Your task to perform on an android device: toggle translation in the chrome app Image 0: 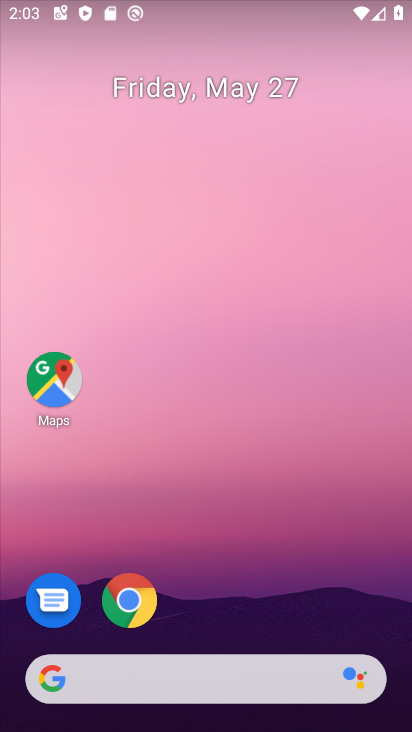
Step 0: click (131, 609)
Your task to perform on an android device: toggle translation in the chrome app Image 1: 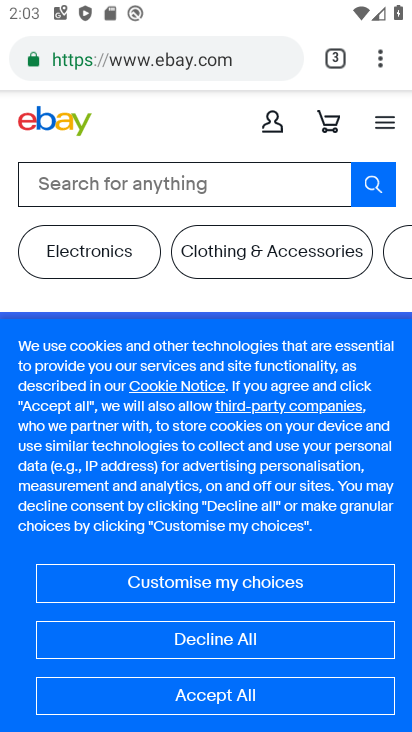
Step 1: click (383, 62)
Your task to perform on an android device: toggle translation in the chrome app Image 2: 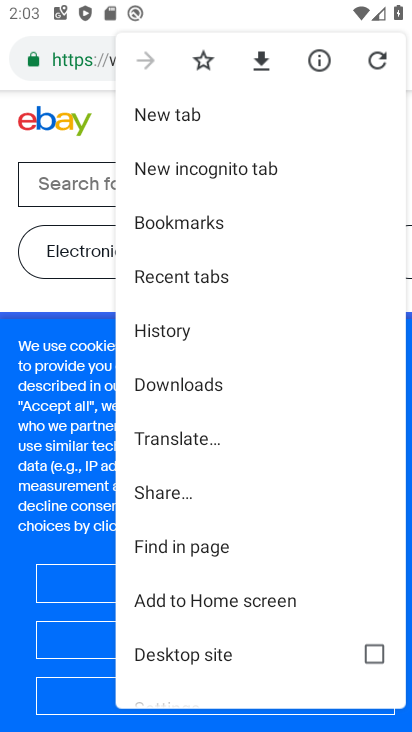
Step 2: drag from (183, 619) to (200, 168)
Your task to perform on an android device: toggle translation in the chrome app Image 3: 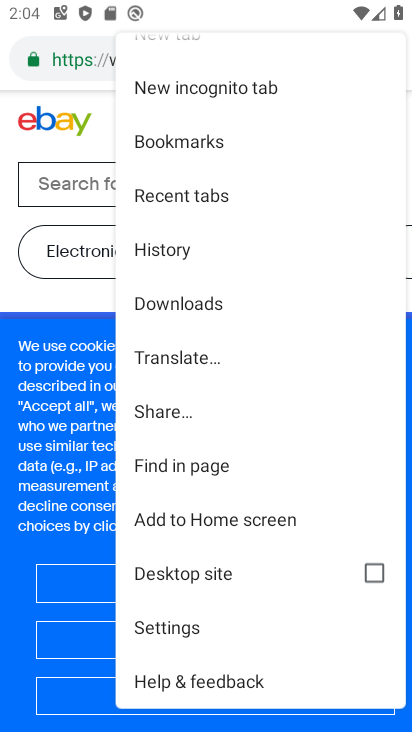
Step 3: click (158, 624)
Your task to perform on an android device: toggle translation in the chrome app Image 4: 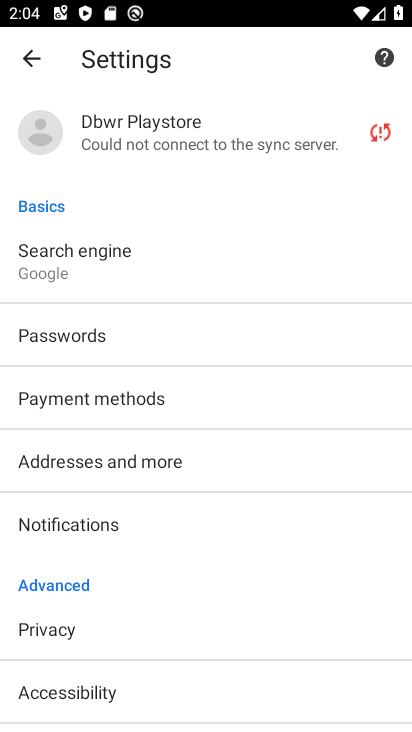
Step 4: drag from (121, 687) to (147, 410)
Your task to perform on an android device: toggle translation in the chrome app Image 5: 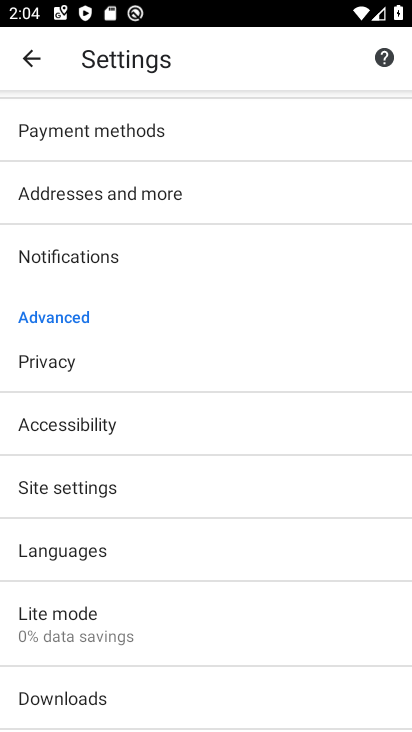
Step 5: click (97, 553)
Your task to perform on an android device: toggle translation in the chrome app Image 6: 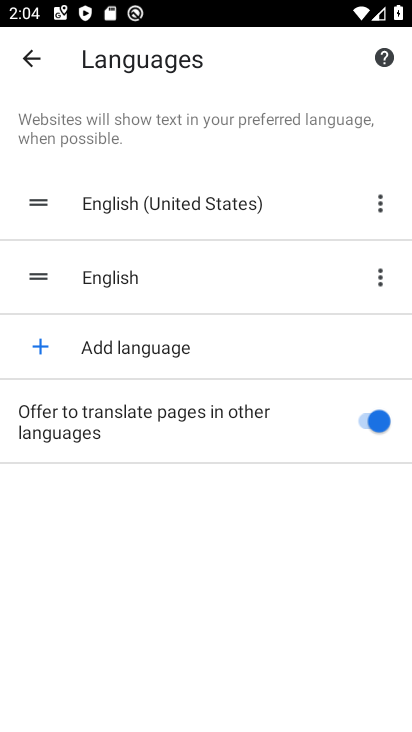
Step 6: click (373, 418)
Your task to perform on an android device: toggle translation in the chrome app Image 7: 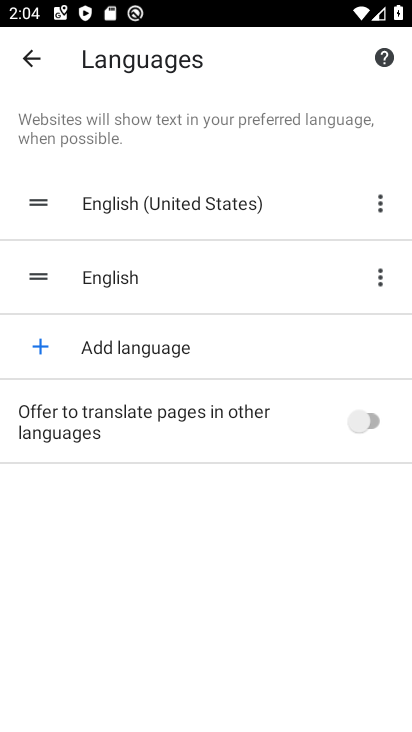
Step 7: task complete